Your task to perform on an android device: turn off picture-in-picture Image 0: 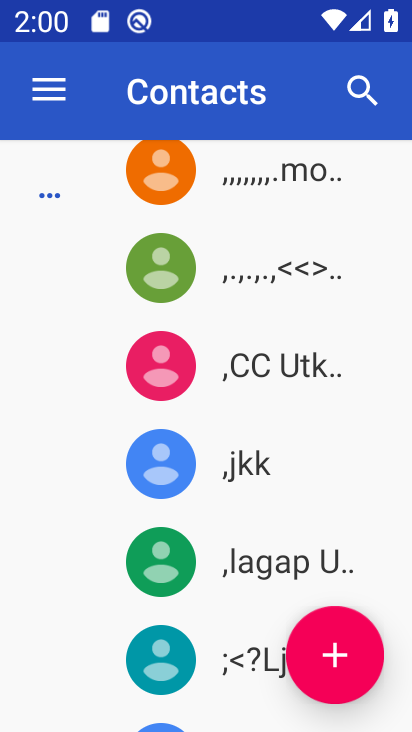
Step 0: press back button
Your task to perform on an android device: turn off picture-in-picture Image 1: 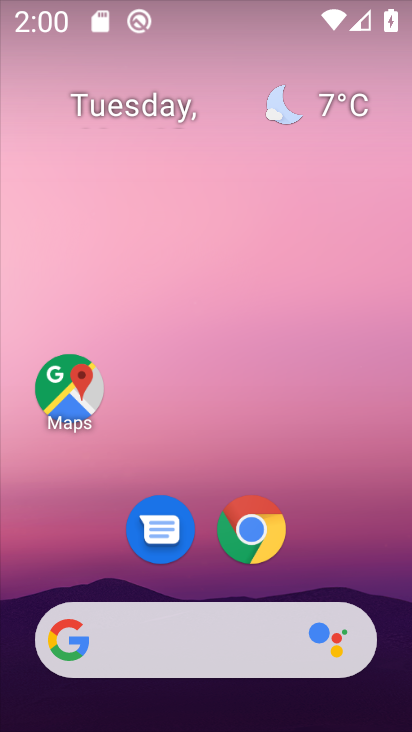
Step 1: click (259, 532)
Your task to perform on an android device: turn off picture-in-picture Image 2: 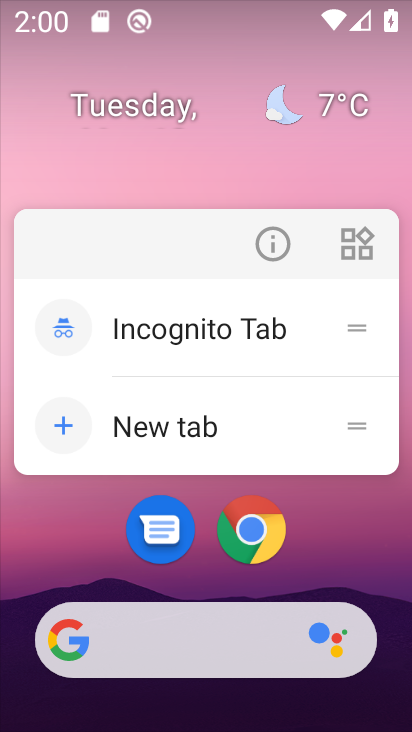
Step 2: click (269, 246)
Your task to perform on an android device: turn off picture-in-picture Image 3: 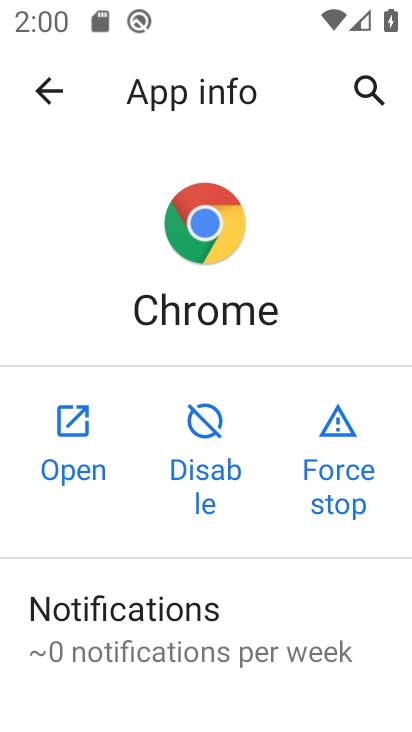
Step 3: drag from (278, 590) to (291, 310)
Your task to perform on an android device: turn off picture-in-picture Image 4: 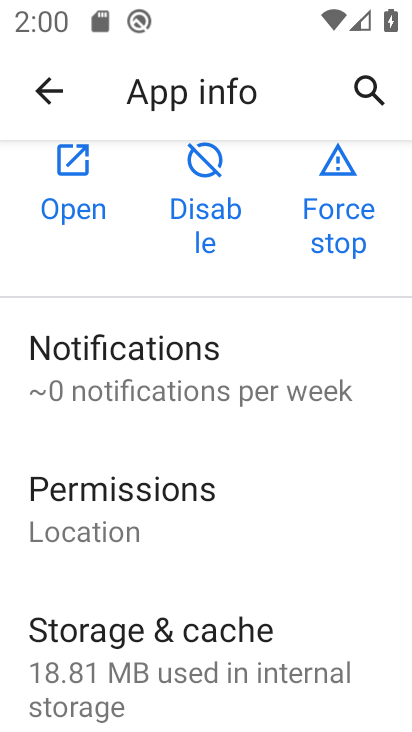
Step 4: drag from (220, 578) to (268, 286)
Your task to perform on an android device: turn off picture-in-picture Image 5: 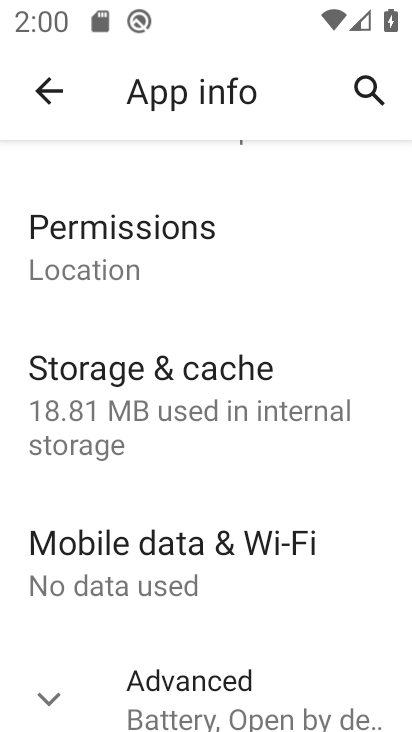
Step 5: drag from (215, 502) to (268, 264)
Your task to perform on an android device: turn off picture-in-picture Image 6: 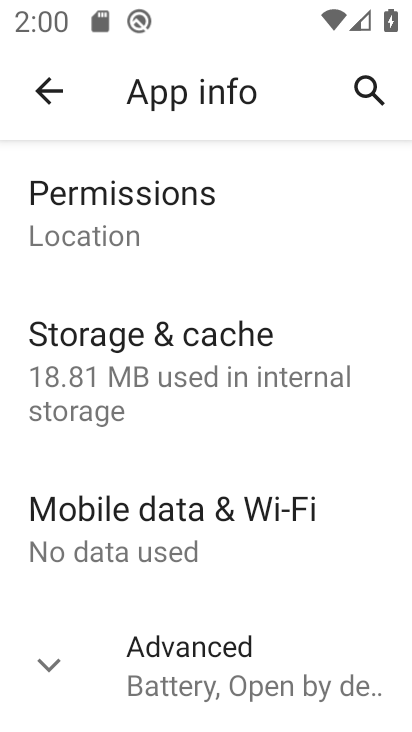
Step 6: click (167, 659)
Your task to perform on an android device: turn off picture-in-picture Image 7: 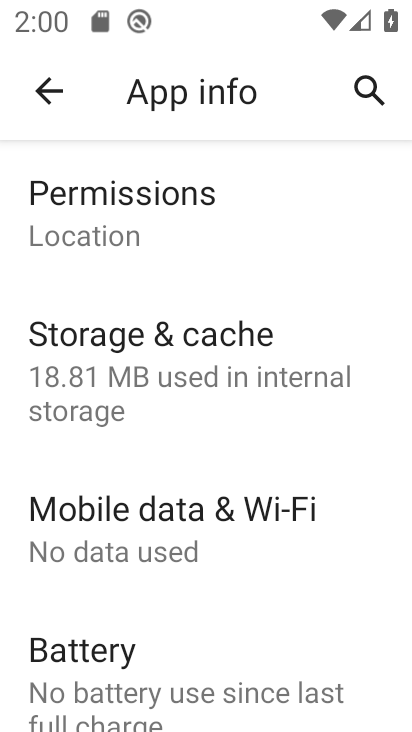
Step 7: drag from (168, 627) to (205, 443)
Your task to perform on an android device: turn off picture-in-picture Image 8: 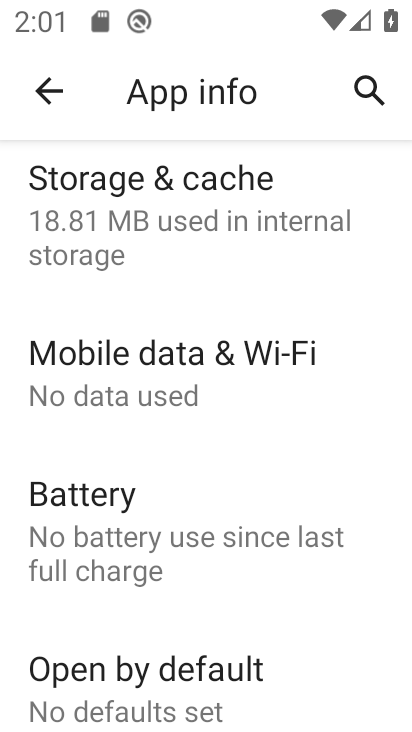
Step 8: drag from (213, 584) to (279, 373)
Your task to perform on an android device: turn off picture-in-picture Image 9: 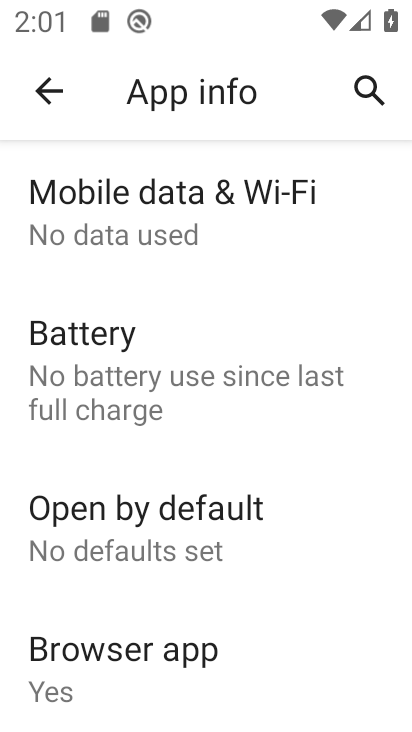
Step 9: drag from (178, 409) to (215, 377)
Your task to perform on an android device: turn off picture-in-picture Image 10: 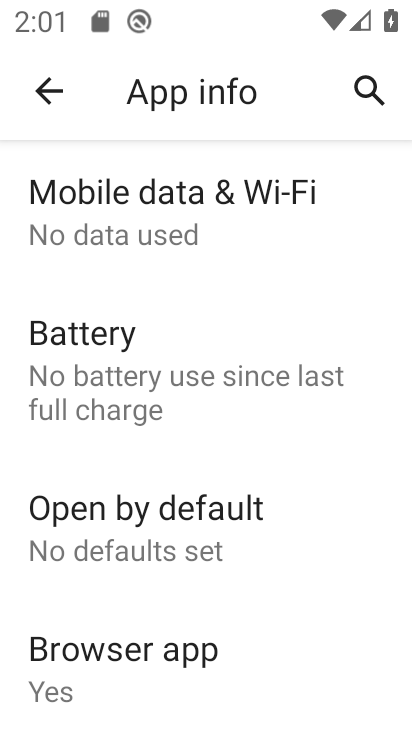
Step 10: drag from (158, 578) to (233, 304)
Your task to perform on an android device: turn off picture-in-picture Image 11: 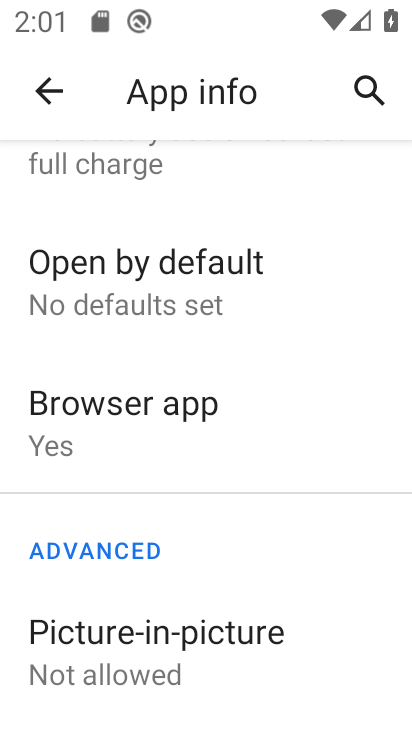
Step 11: click (121, 634)
Your task to perform on an android device: turn off picture-in-picture Image 12: 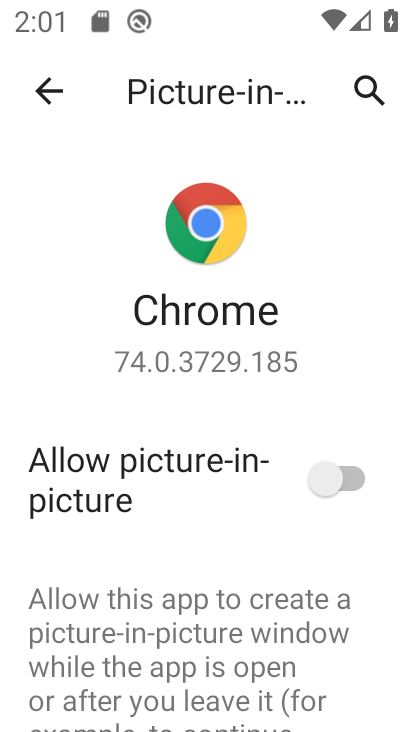
Step 12: task complete